Your task to perform on an android device: open app "Roku - Official Remote Control" (install if not already installed) and go to login screen Image 0: 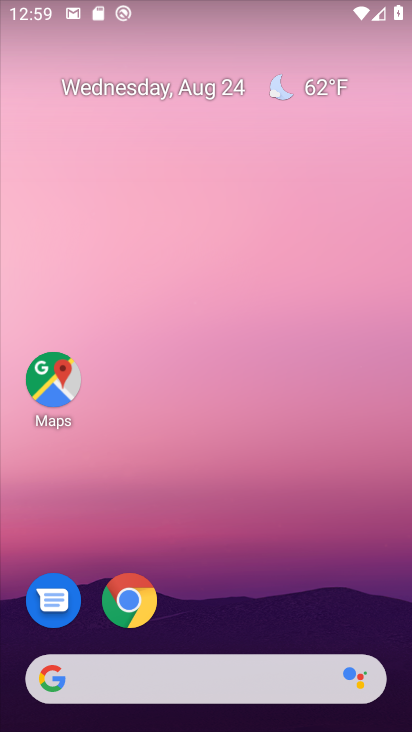
Step 0: click (266, 96)
Your task to perform on an android device: open app "Roku - Official Remote Control" (install if not already installed) and go to login screen Image 1: 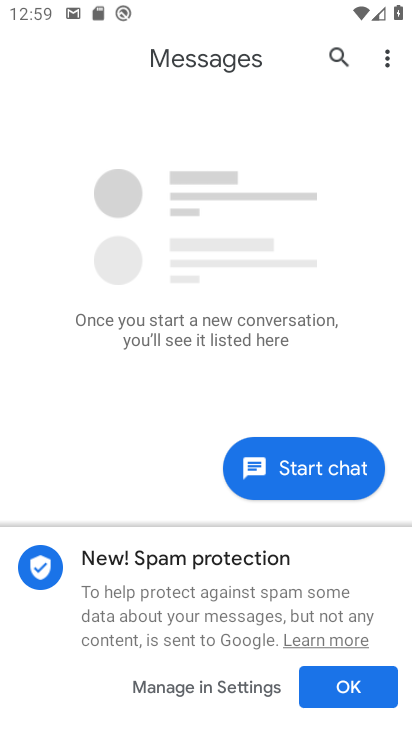
Step 1: press home button
Your task to perform on an android device: open app "Roku - Official Remote Control" (install if not already installed) and go to login screen Image 2: 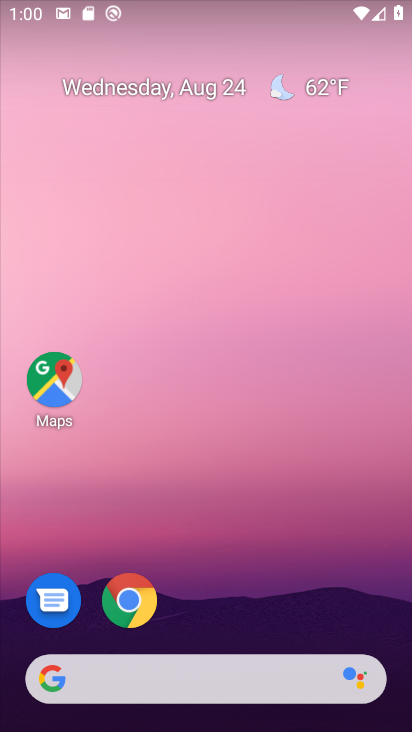
Step 2: drag from (258, 638) to (255, 40)
Your task to perform on an android device: open app "Roku - Official Remote Control" (install if not already installed) and go to login screen Image 3: 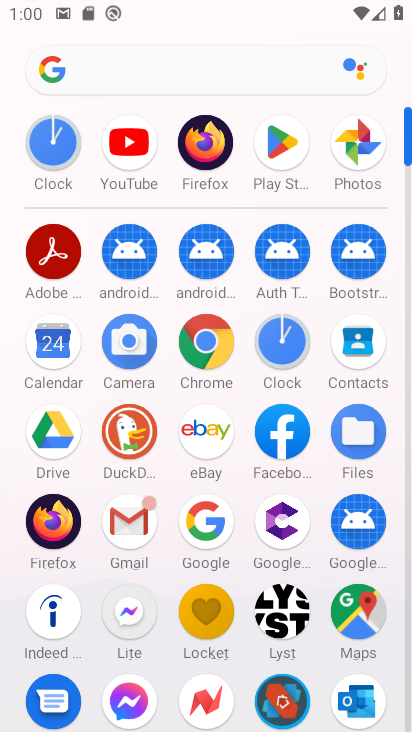
Step 3: click (283, 156)
Your task to perform on an android device: open app "Roku - Official Remote Control" (install if not already installed) and go to login screen Image 4: 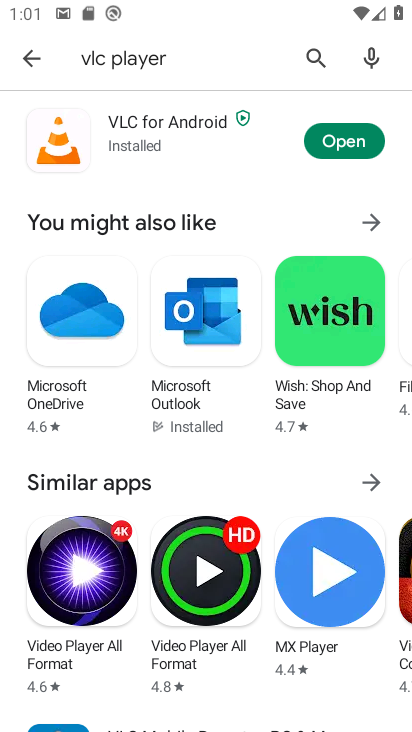
Step 4: click (329, 54)
Your task to perform on an android device: open app "Roku - Official Remote Control" (install if not already installed) and go to login screen Image 5: 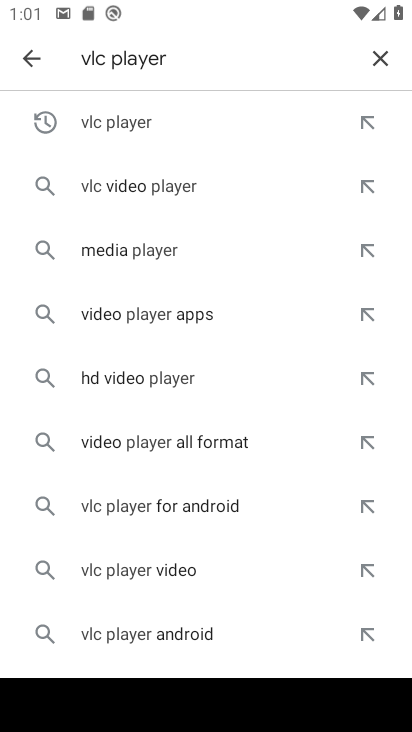
Step 5: click (382, 61)
Your task to perform on an android device: open app "Roku - Official Remote Control" (install if not already installed) and go to login screen Image 6: 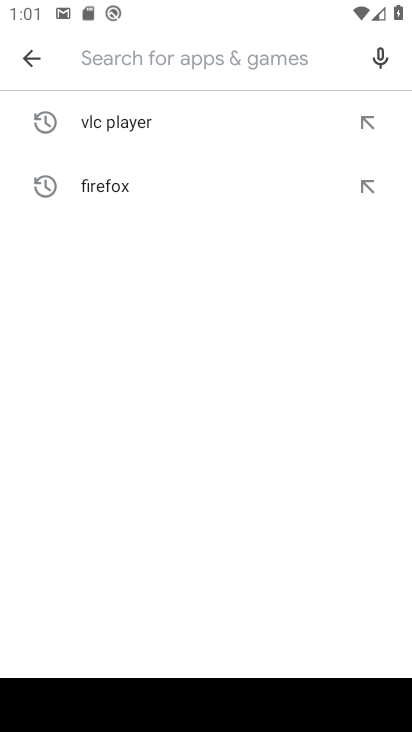
Step 6: type "roku"
Your task to perform on an android device: open app "Roku - Official Remote Control" (install if not already installed) and go to login screen Image 7: 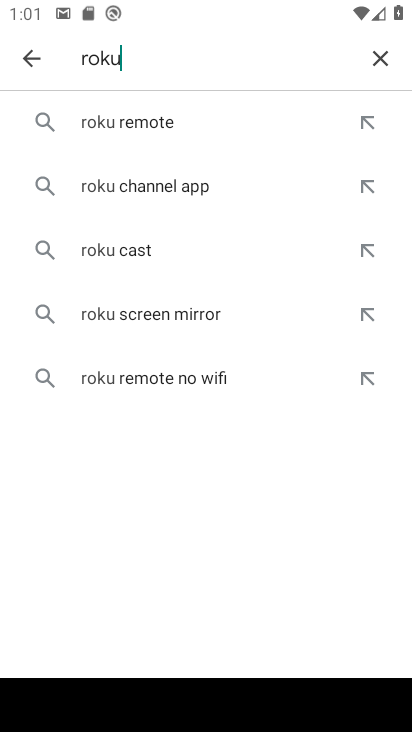
Step 7: click (250, 137)
Your task to perform on an android device: open app "Roku - Official Remote Control" (install if not already installed) and go to login screen Image 8: 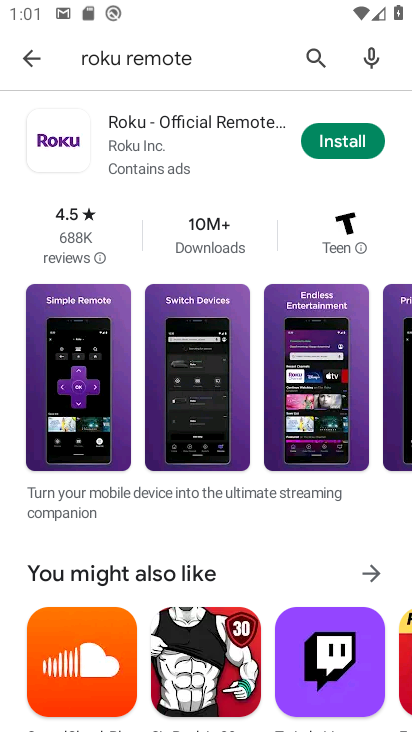
Step 8: click (337, 147)
Your task to perform on an android device: open app "Roku - Official Remote Control" (install if not already installed) and go to login screen Image 9: 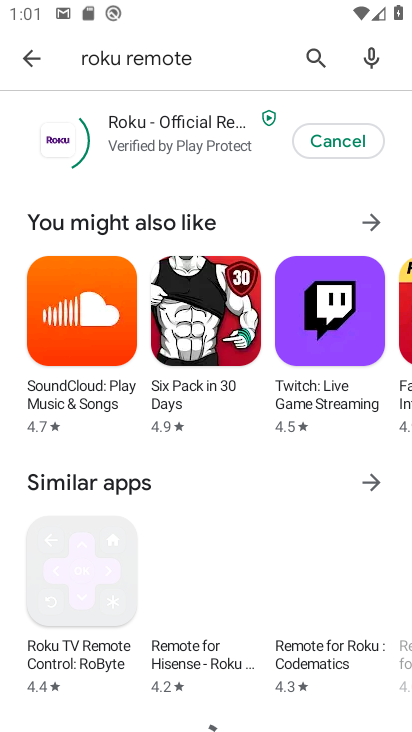
Step 9: task complete